Your task to perform on an android device: Clear the cart on newegg. Search for razer huntsman on newegg, select the first entry, add it to the cart, then select checkout. Image 0: 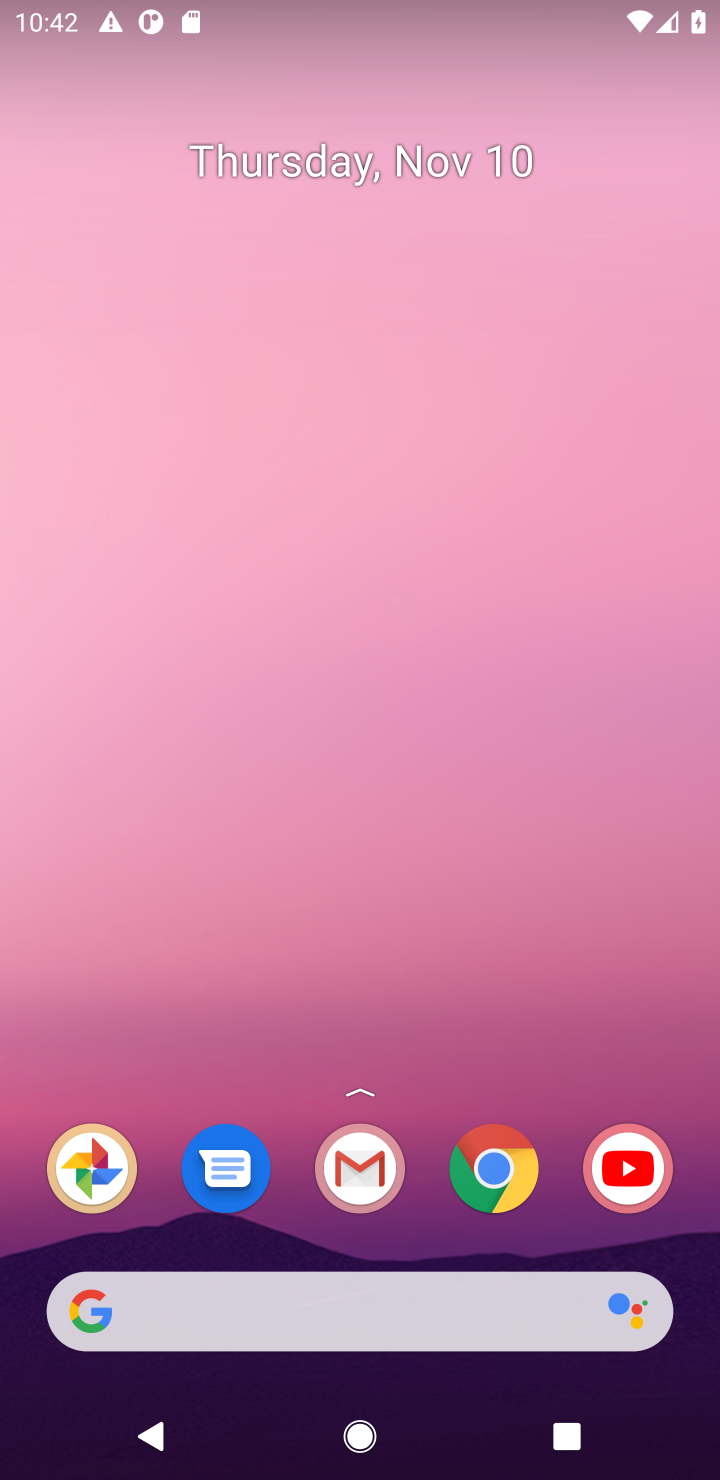
Step 0: click (497, 1195)
Your task to perform on an android device: Clear the cart on newegg. Search for razer huntsman on newegg, select the first entry, add it to the cart, then select checkout. Image 1: 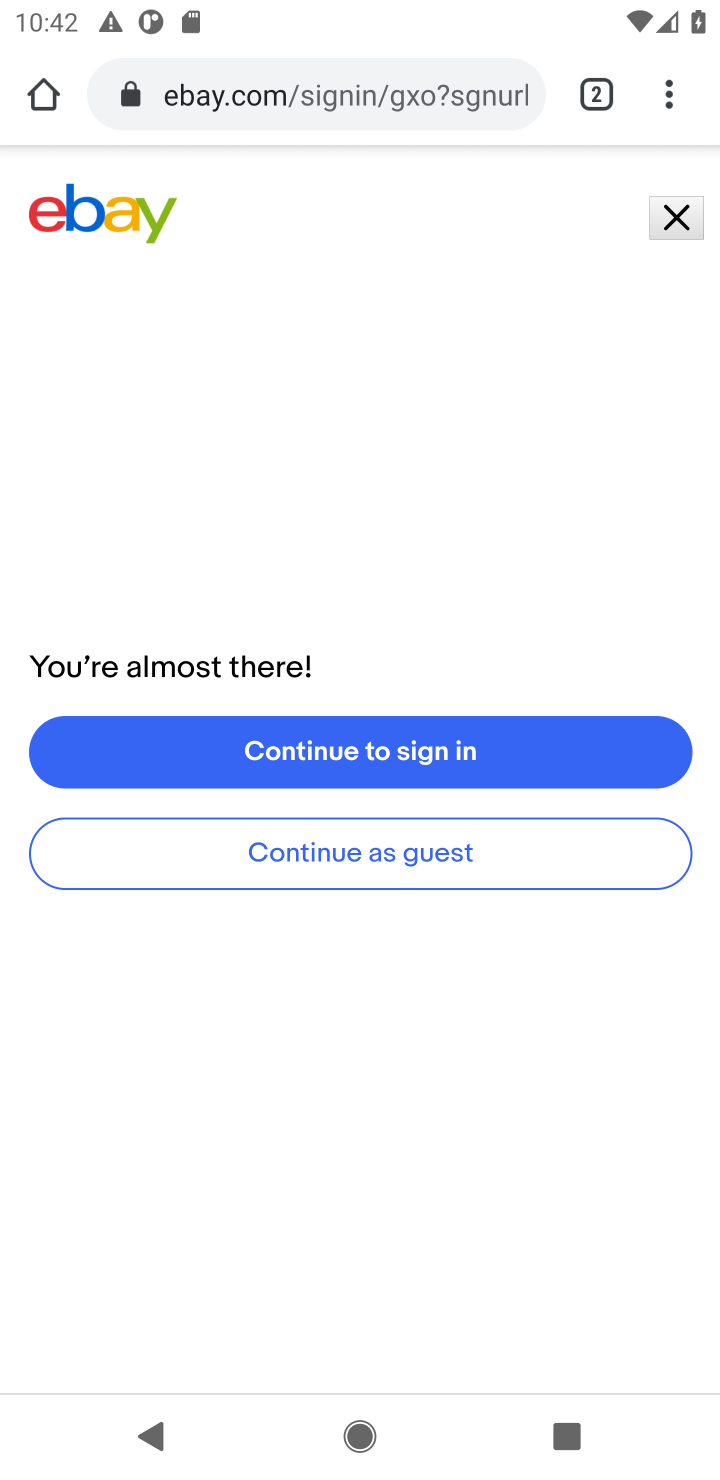
Step 1: click (326, 95)
Your task to perform on an android device: Clear the cart on newegg. Search for razer huntsman on newegg, select the first entry, add it to the cart, then select checkout. Image 2: 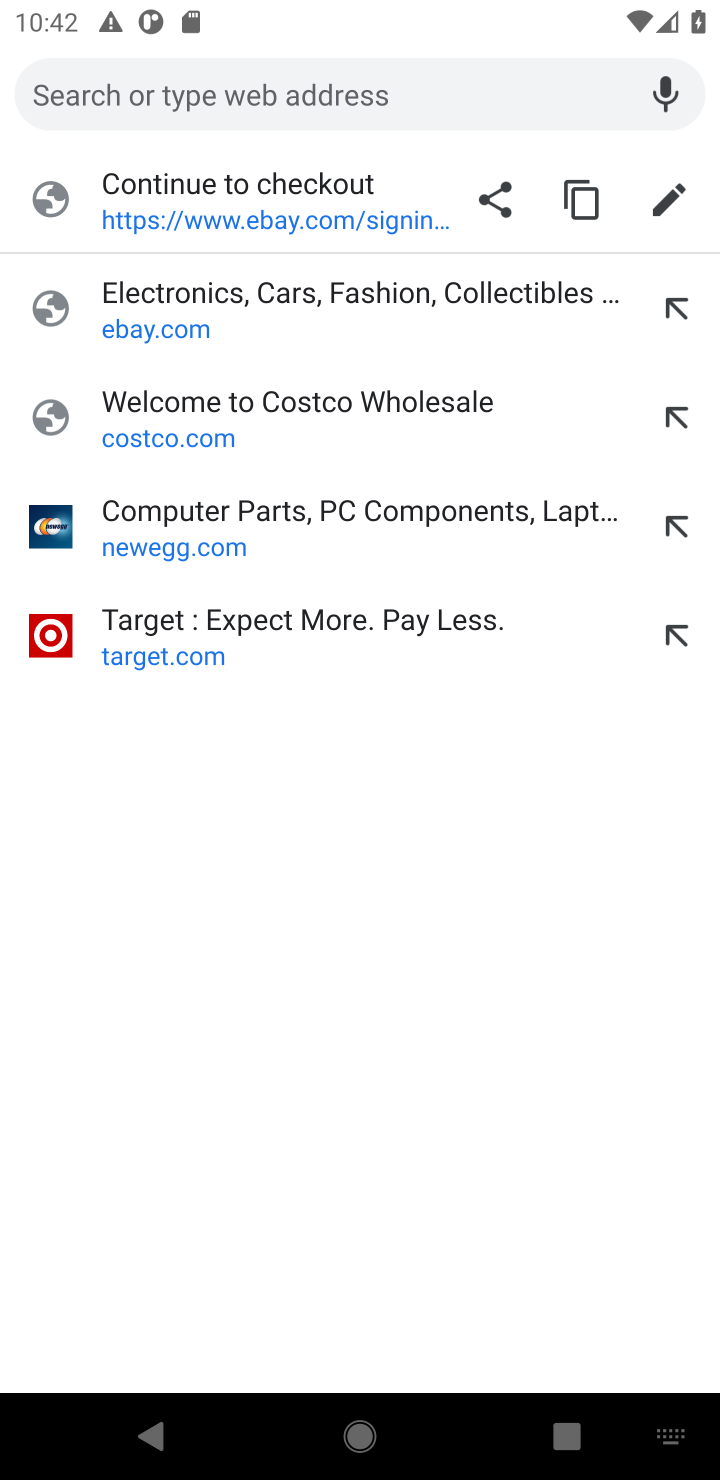
Step 2: click (147, 525)
Your task to perform on an android device: Clear the cart on newegg. Search for razer huntsman on newegg, select the first entry, add it to the cart, then select checkout. Image 3: 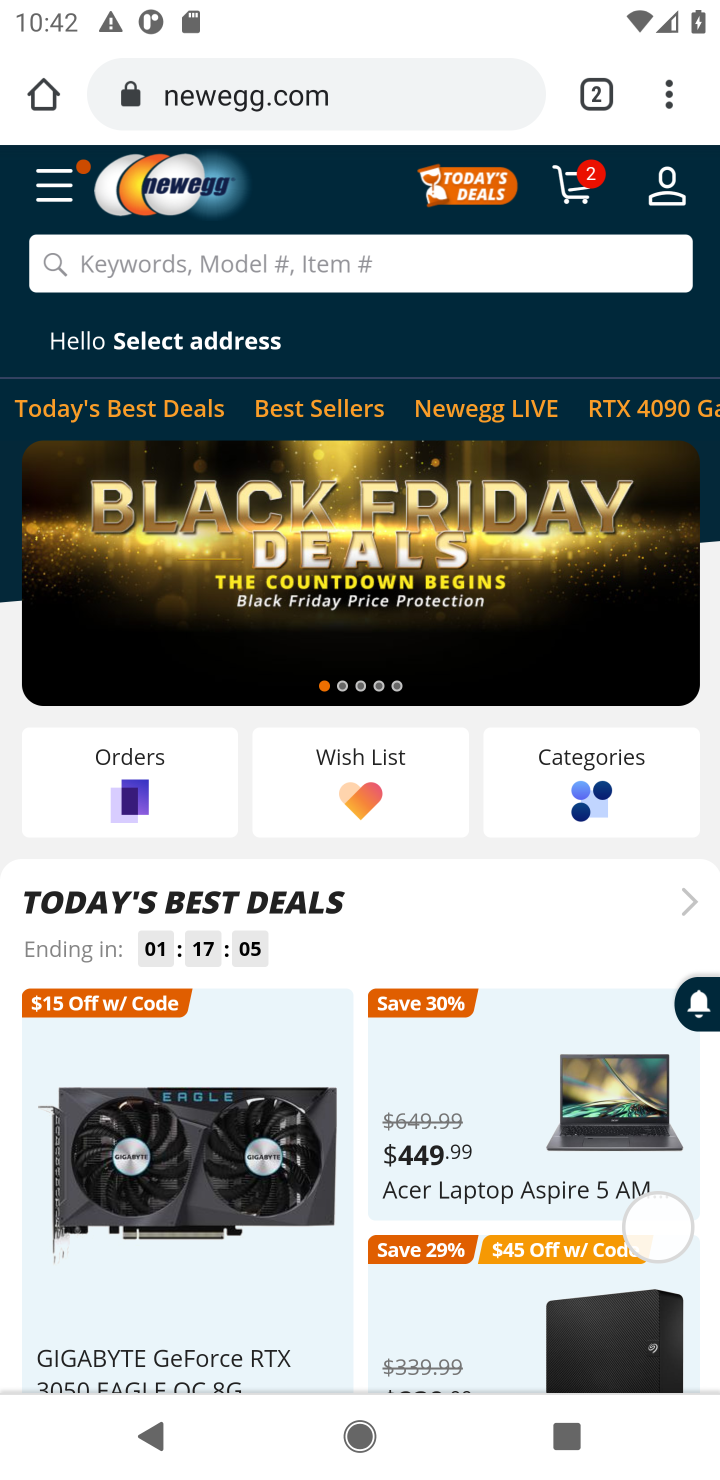
Step 3: click (584, 199)
Your task to perform on an android device: Clear the cart on newegg. Search for razer huntsman on newegg, select the first entry, add it to the cart, then select checkout. Image 4: 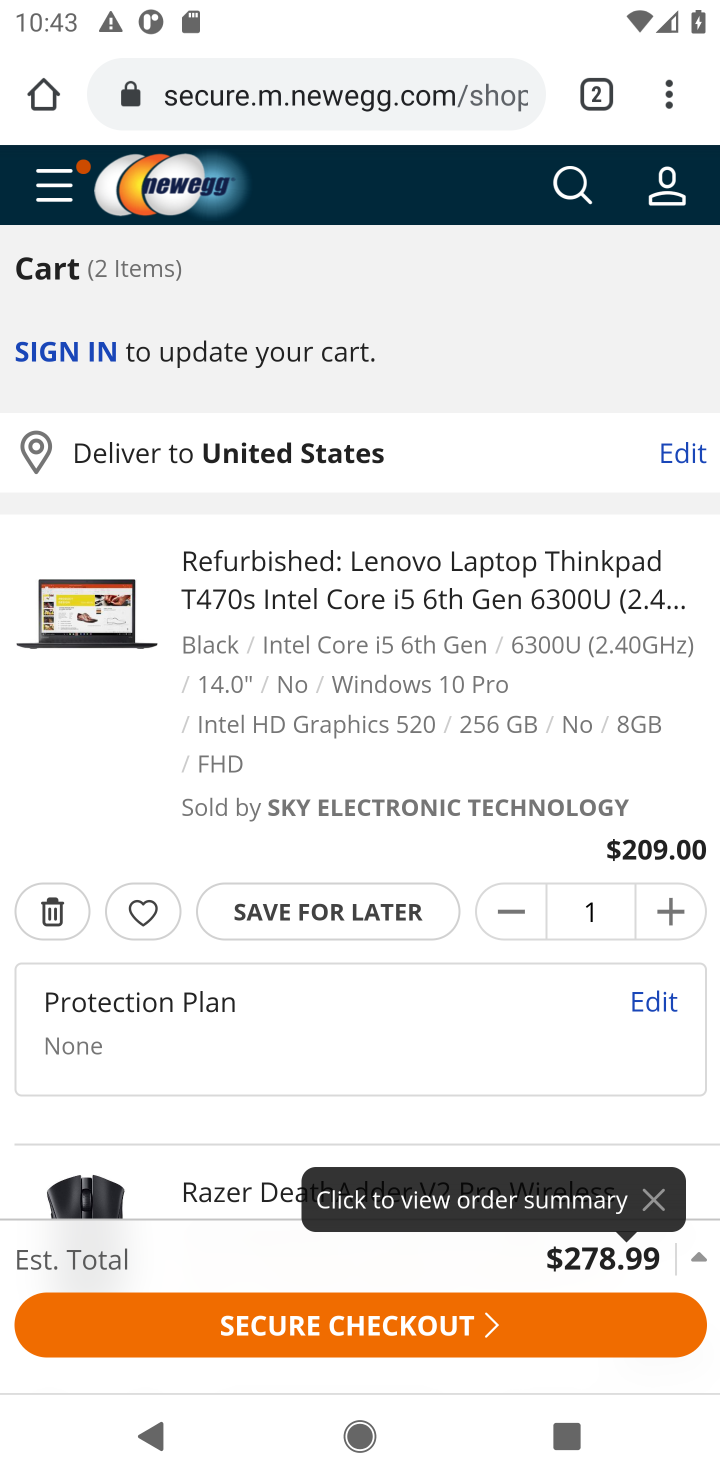
Step 4: click (47, 918)
Your task to perform on an android device: Clear the cart on newegg. Search for razer huntsman on newegg, select the first entry, add it to the cart, then select checkout. Image 5: 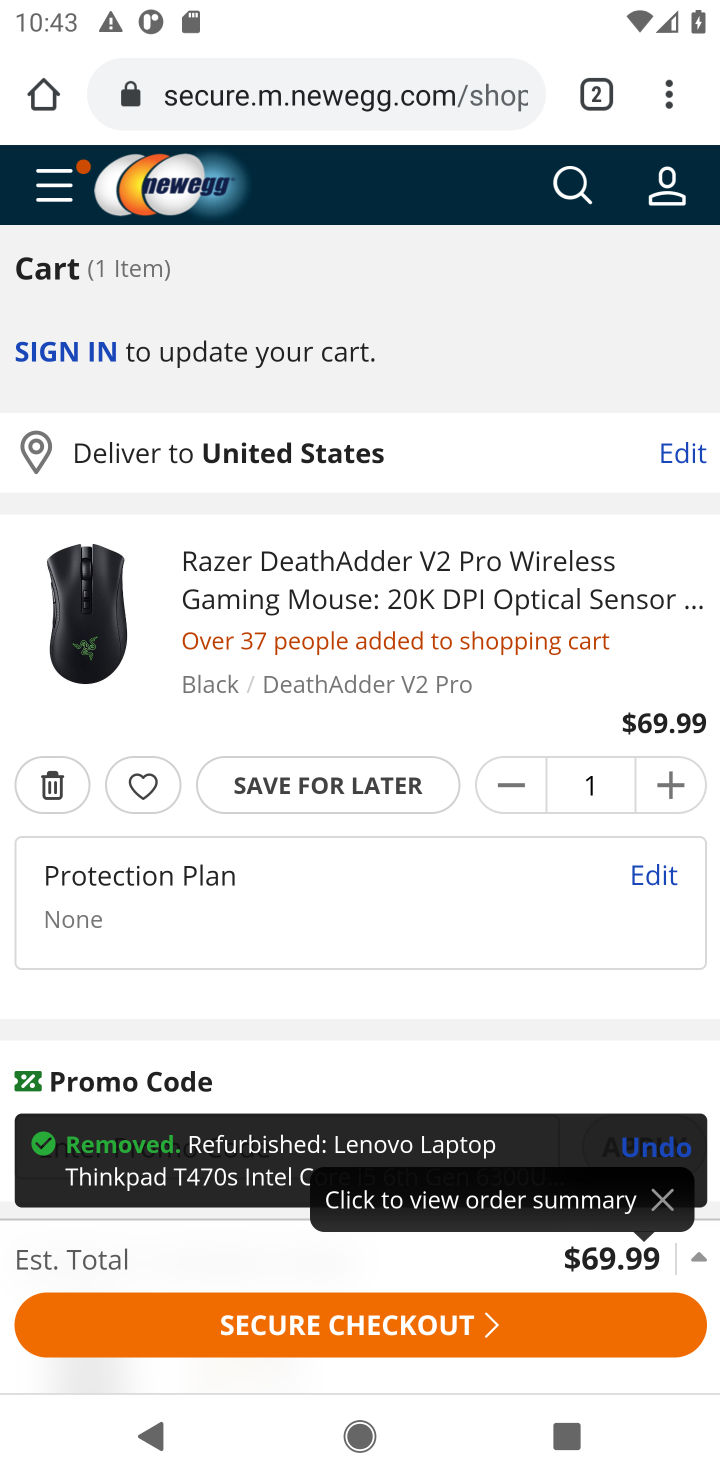
Step 5: click (49, 788)
Your task to perform on an android device: Clear the cart on newegg. Search for razer huntsman on newegg, select the first entry, add it to the cart, then select checkout. Image 6: 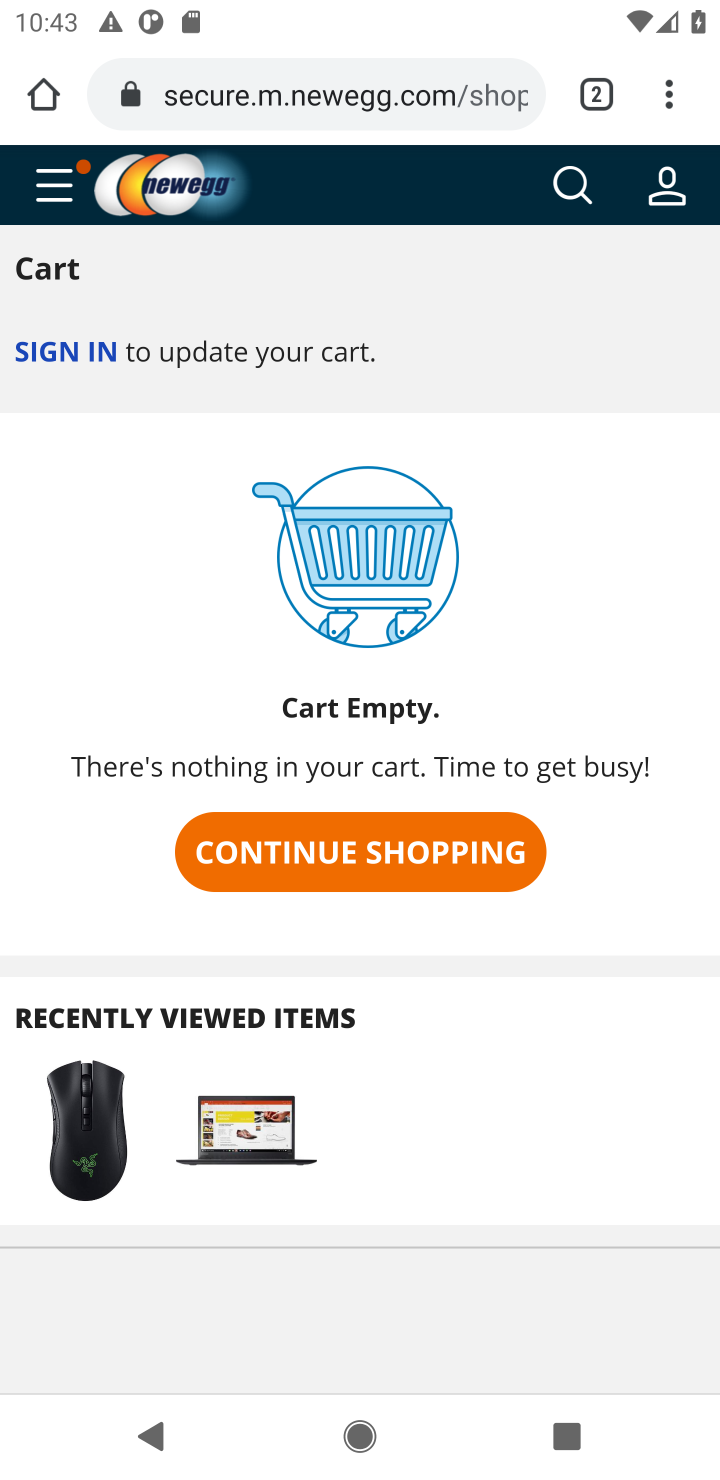
Step 6: click (301, 857)
Your task to perform on an android device: Clear the cart on newegg. Search for razer huntsman on newegg, select the first entry, add it to the cart, then select checkout. Image 7: 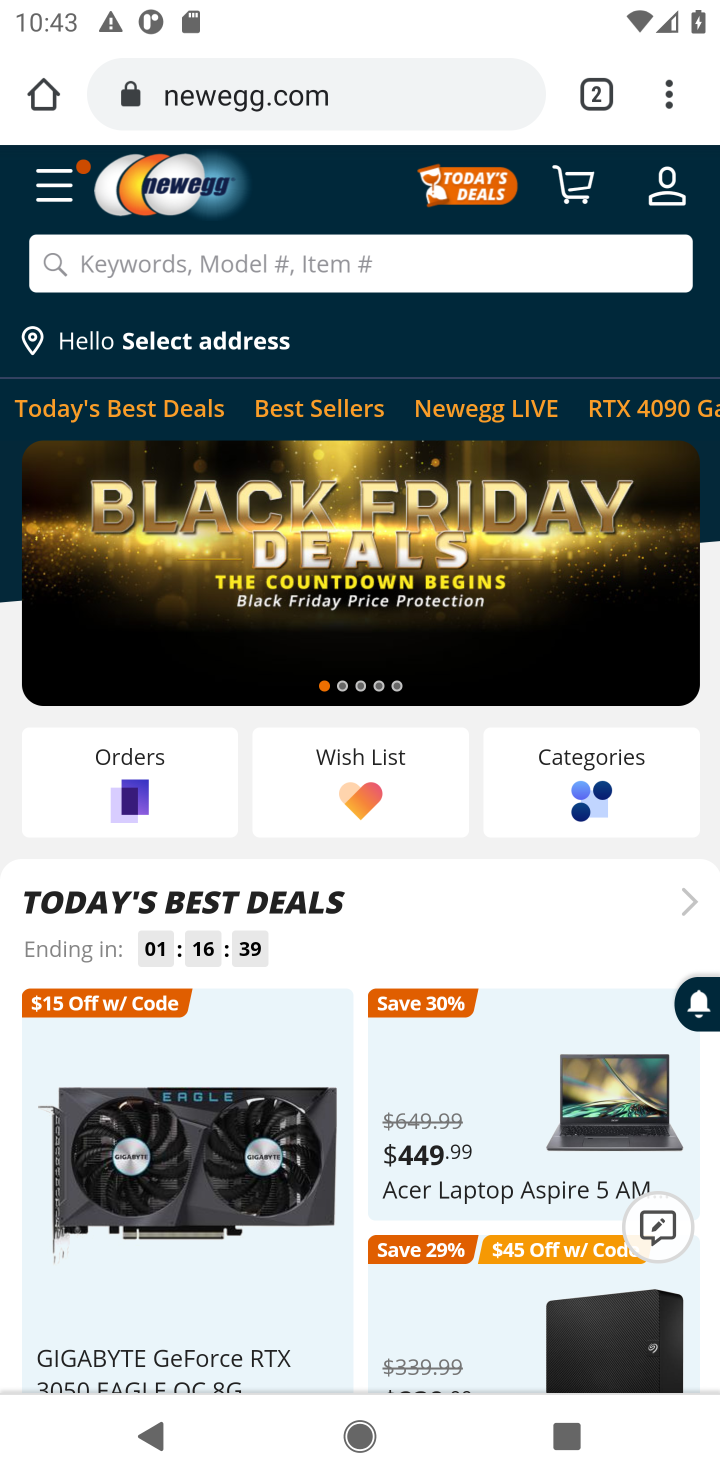
Step 7: click (149, 256)
Your task to perform on an android device: Clear the cart on newegg. Search for razer huntsman on newegg, select the first entry, add it to the cart, then select checkout. Image 8: 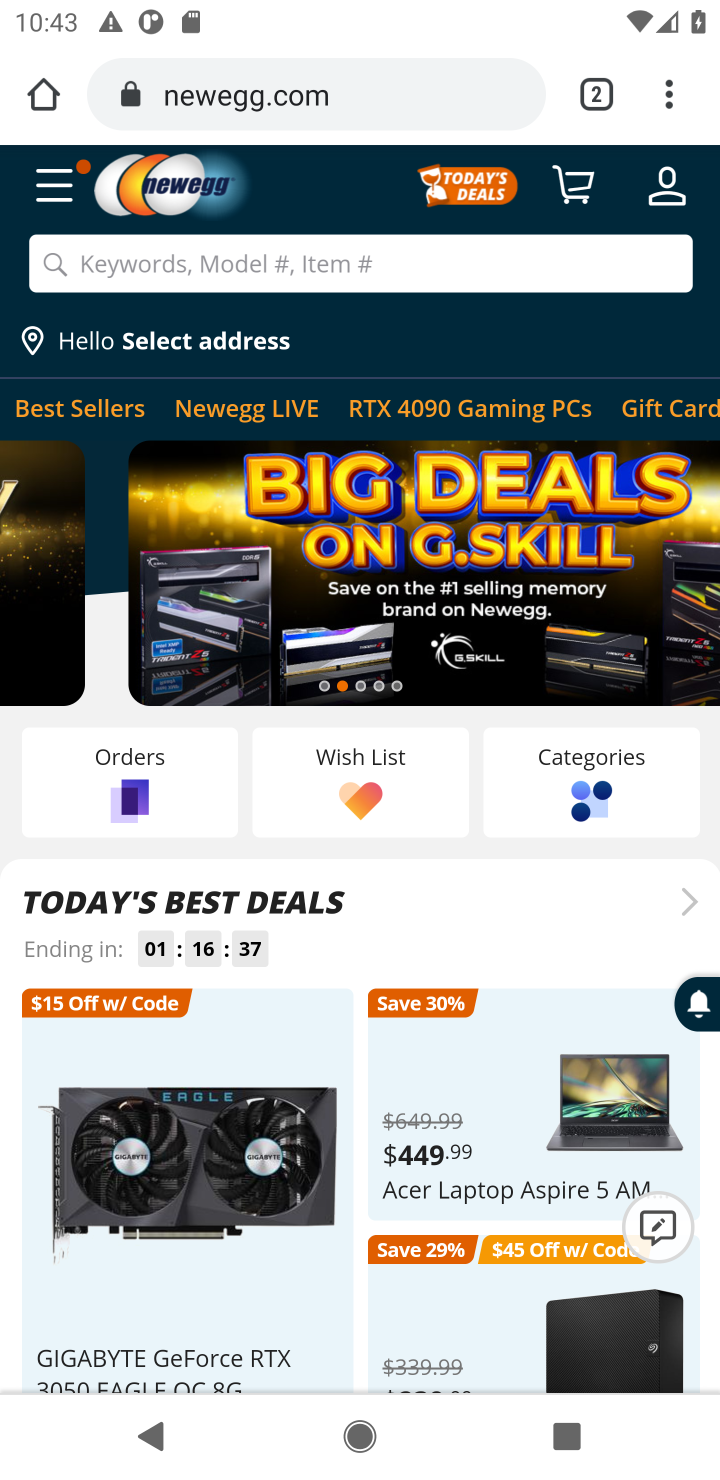
Step 8: type "razer huntsman "
Your task to perform on an android device: Clear the cart on newegg. Search for razer huntsman on newegg, select the first entry, add it to the cart, then select checkout. Image 9: 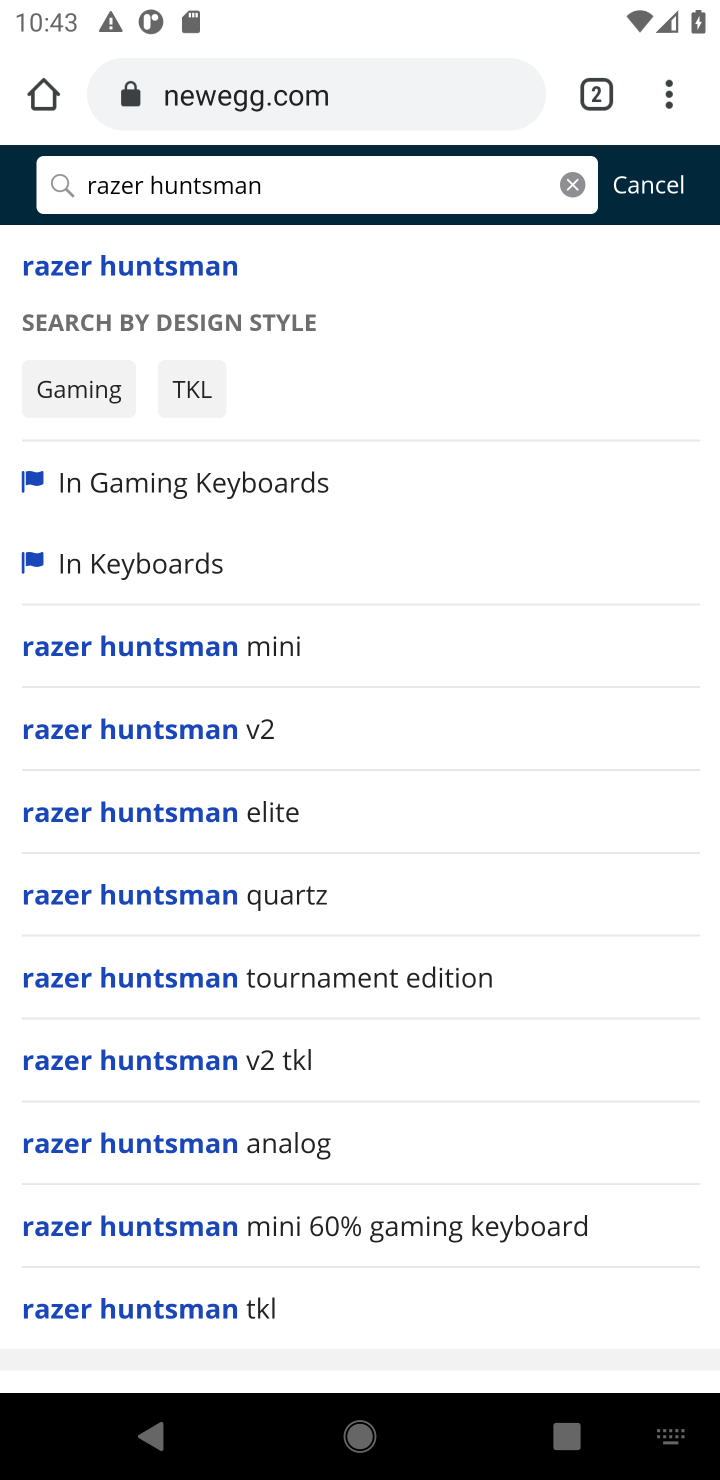
Step 9: click (159, 255)
Your task to perform on an android device: Clear the cart on newegg. Search for razer huntsman on newegg, select the first entry, add it to the cart, then select checkout. Image 10: 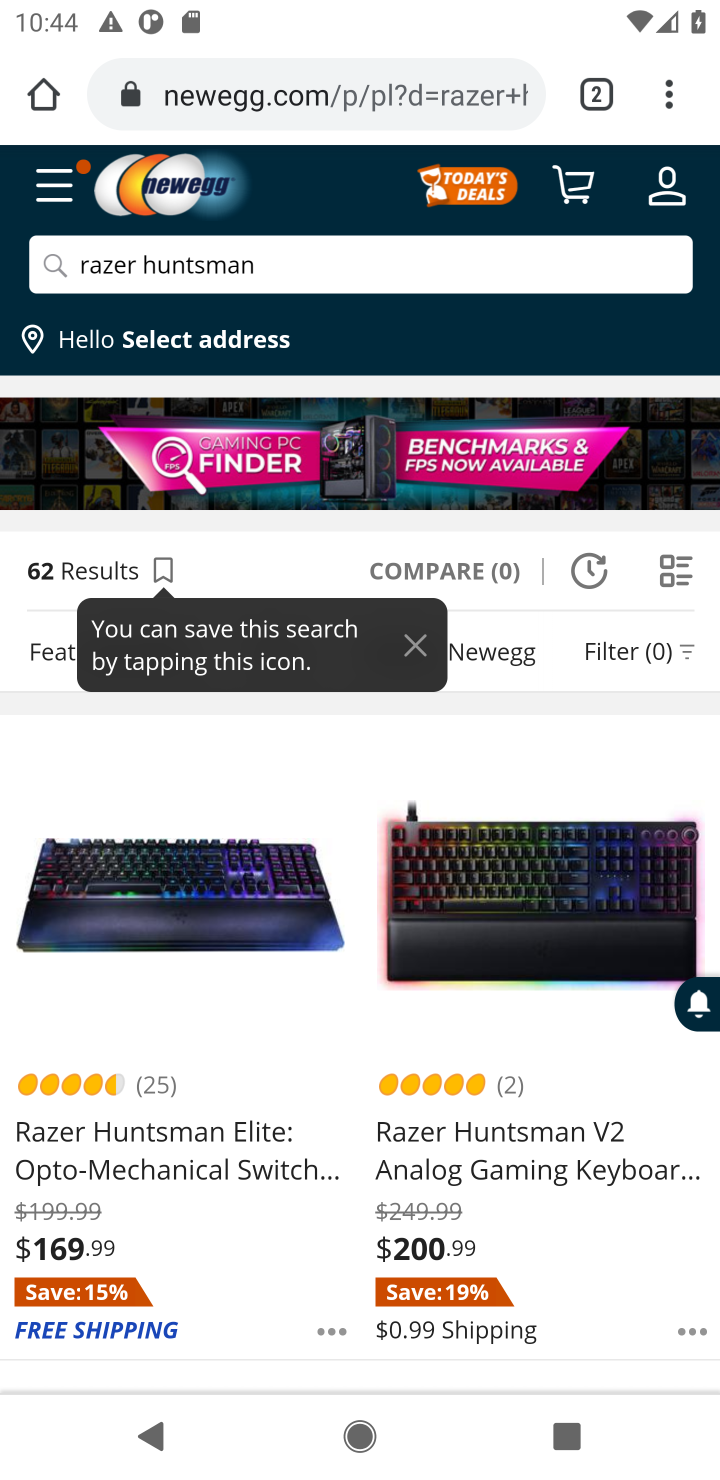
Step 10: click (192, 1094)
Your task to perform on an android device: Clear the cart on newegg. Search for razer huntsman on newegg, select the first entry, add it to the cart, then select checkout. Image 11: 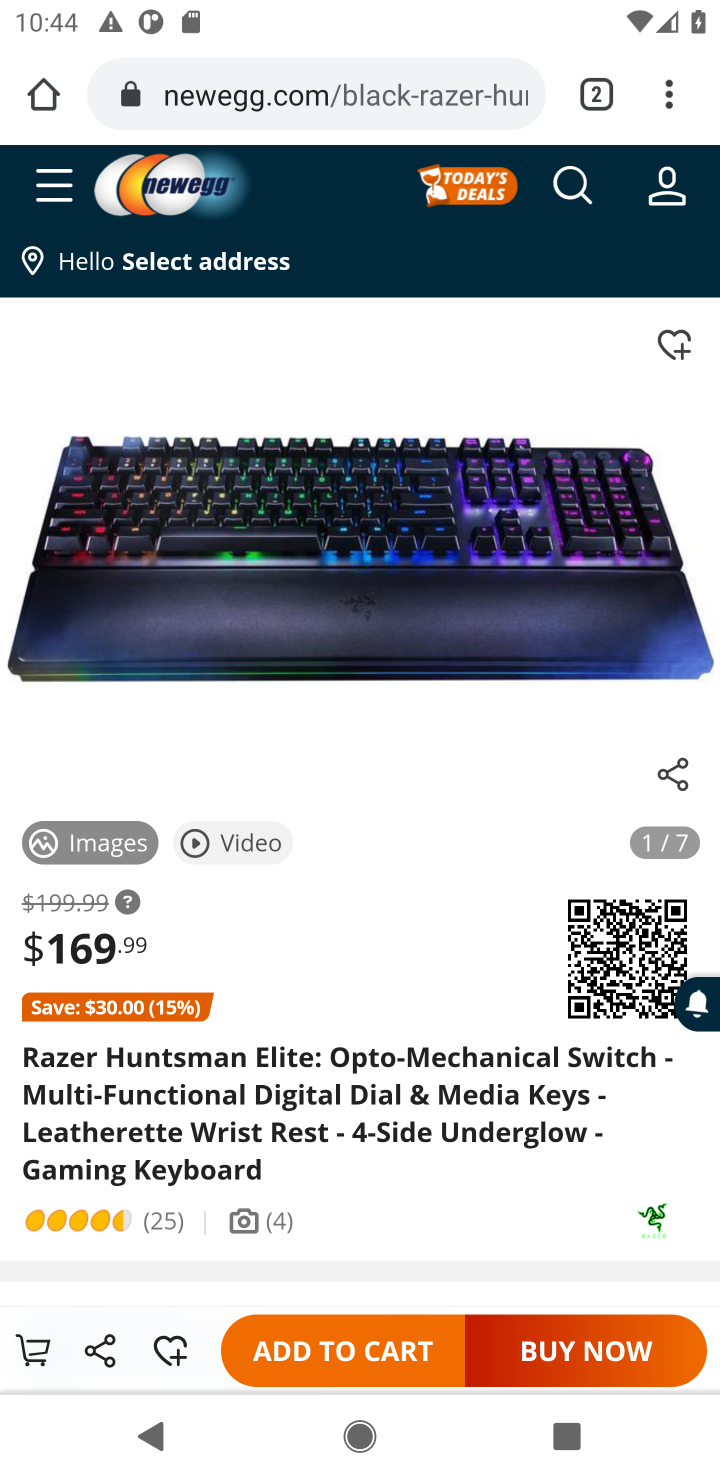
Step 11: click (359, 1340)
Your task to perform on an android device: Clear the cart on newegg. Search for razer huntsman on newegg, select the first entry, add it to the cart, then select checkout. Image 12: 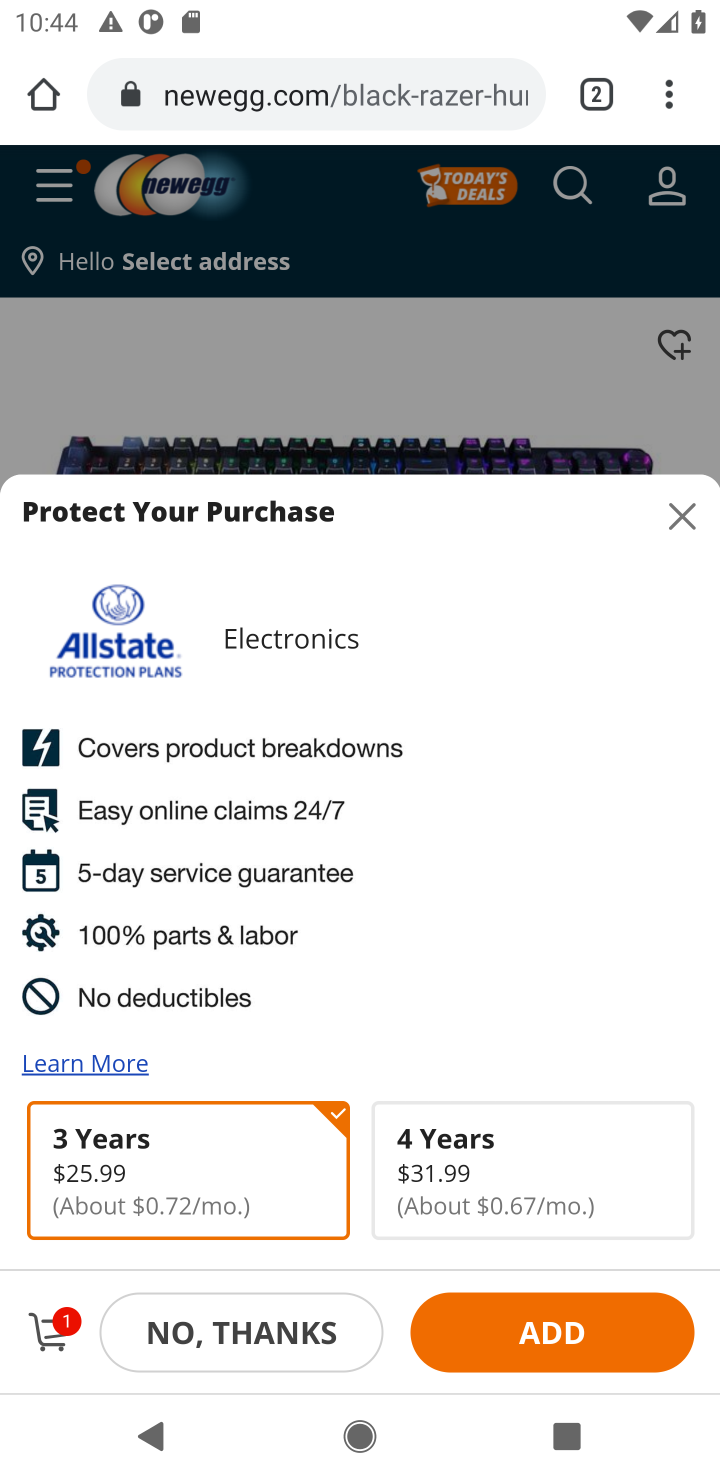
Step 12: click (51, 1337)
Your task to perform on an android device: Clear the cart on newegg. Search for razer huntsman on newegg, select the first entry, add it to the cart, then select checkout. Image 13: 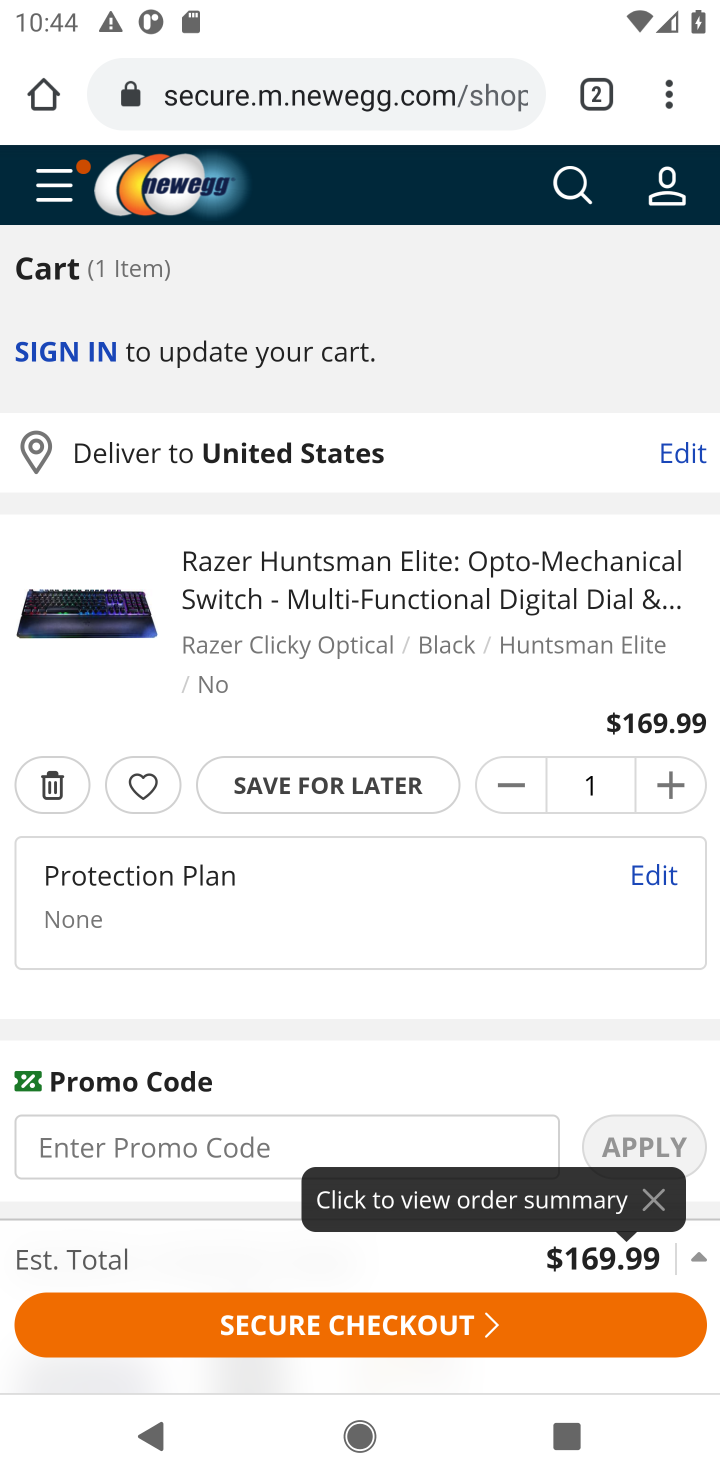
Step 13: click (328, 1329)
Your task to perform on an android device: Clear the cart on newegg. Search for razer huntsman on newegg, select the first entry, add it to the cart, then select checkout. Image 14: 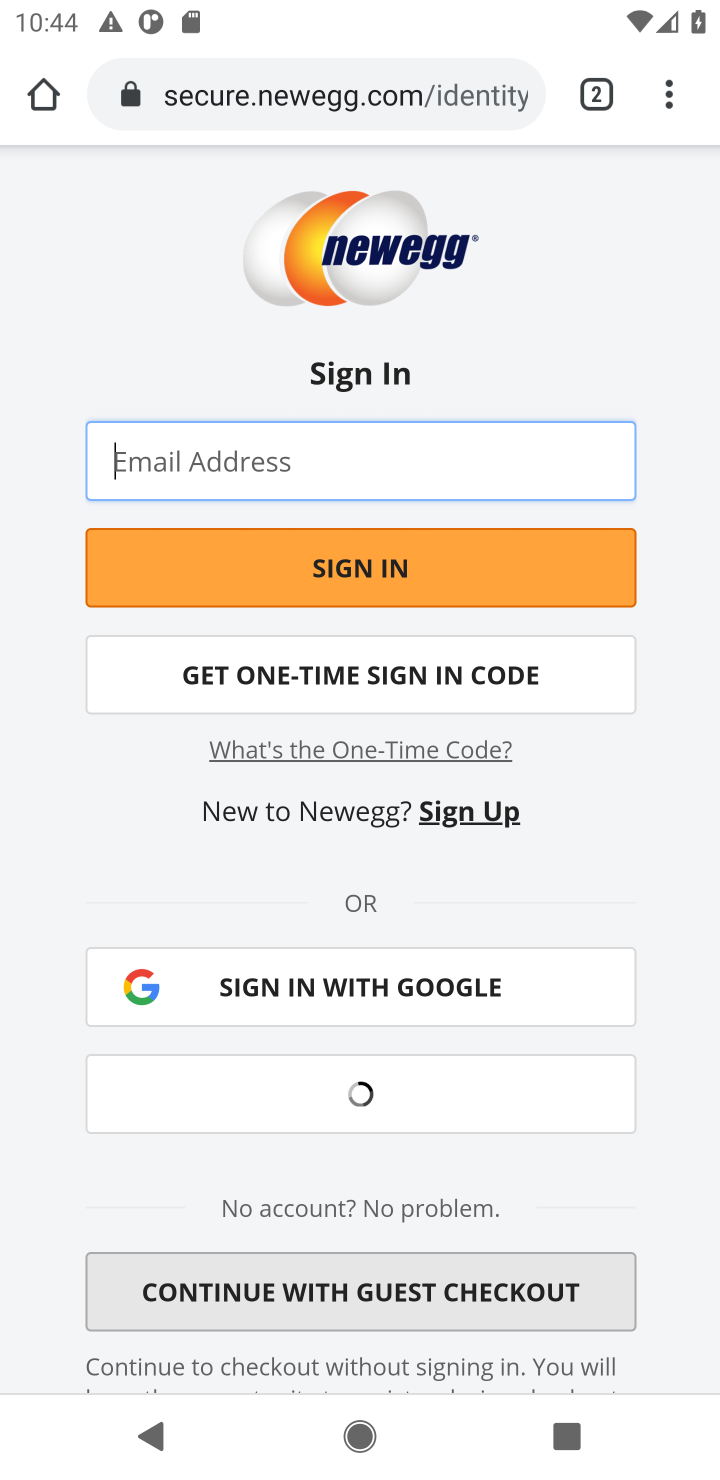
Step 14: task complete